Your task to perform on an android device: Go to privacy settings Image 0: 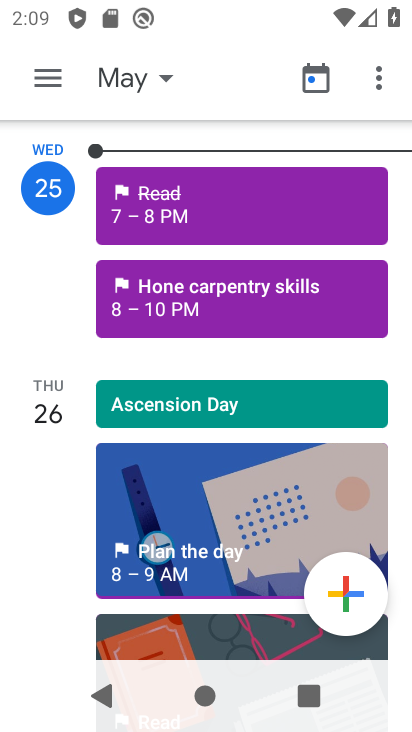
Step 0: press home button
Your task to perform on an android device: Go to privacy settings Image 1: 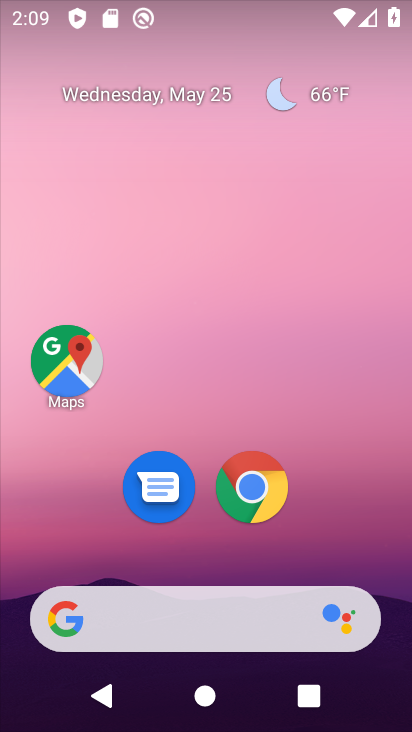
Step 1: drag from (234, 565) to (184, 49)
Your task to perform on an android device: Go to privacy settings Image 2: 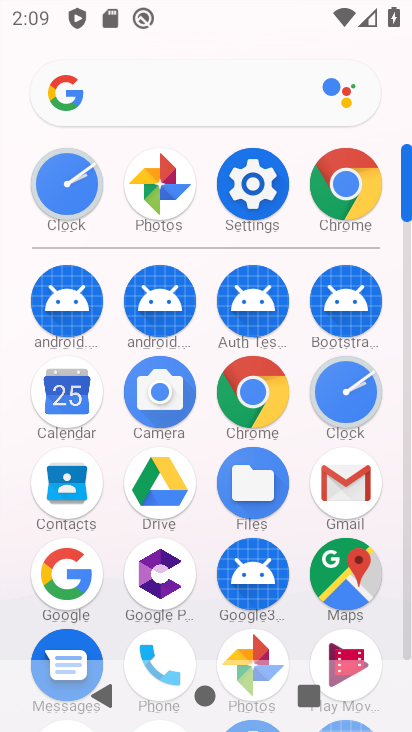
Step 2: click (274, 219)
Your task to perform on an android device: Go to privacy settings Image 3: 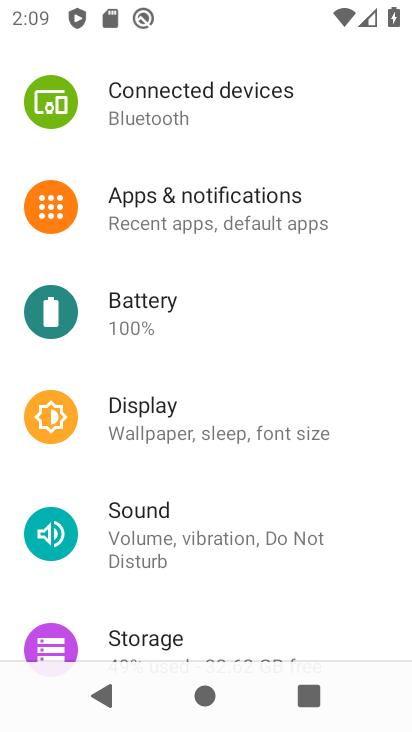
Step 3: drag from (185, 597) to (183, 228)
Your task to perform on an android device: Go to privacy settings Image 4: 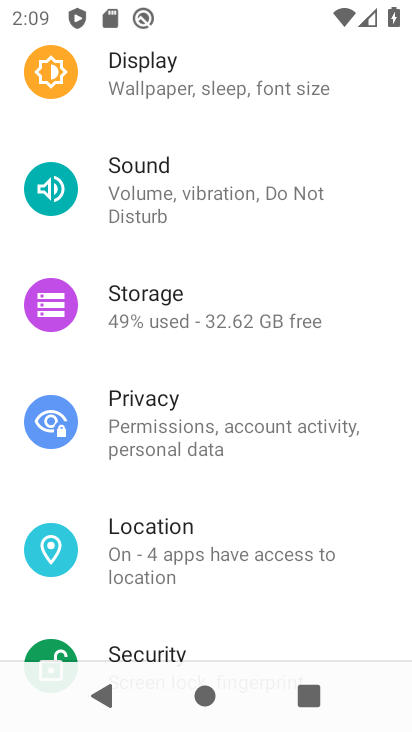
Step 4: click (150, 445)
Your task to perform on an android device: Go to privacy settings Image 5: 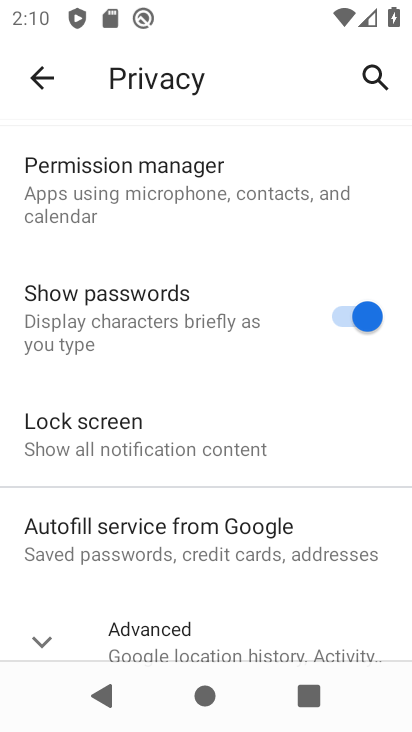
Step 5: task complete